Your task to perform on an android device: Set the phone to "Do not disturb". Image 0: 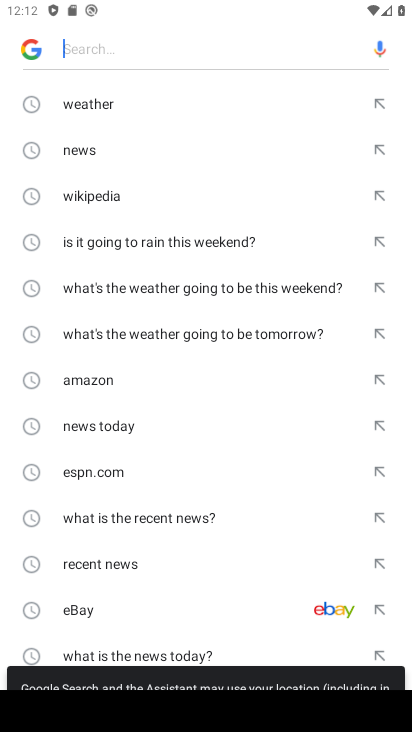
Step 0: press home button
Your task to perform on an android device: Set the phone to "Do not disturb". Image 1: 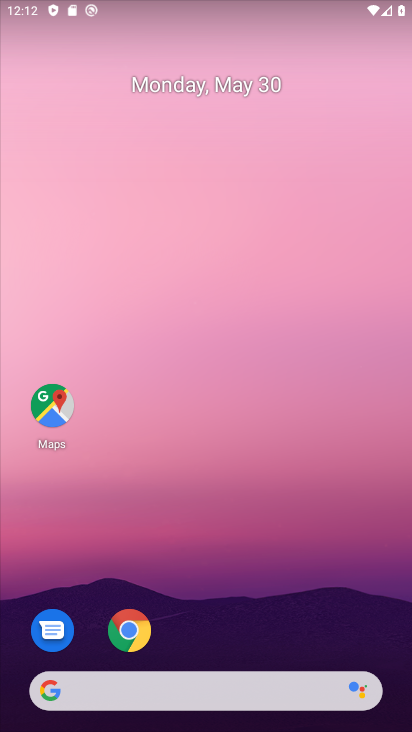
Step 1: drag from (134, 669) to (277, 133)
Your task to perform on an android device: Set the phone to "Do not disturb". Image 2: 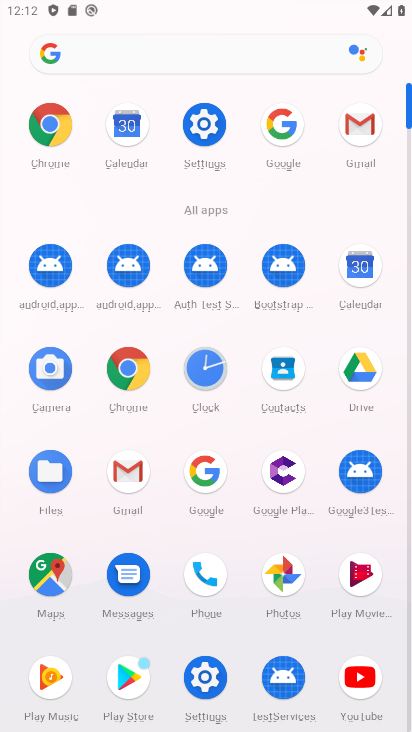
Step 2: click (211, 135)
Your task to perform on an android device: Set the phone to "Do not disturb". Image 3: 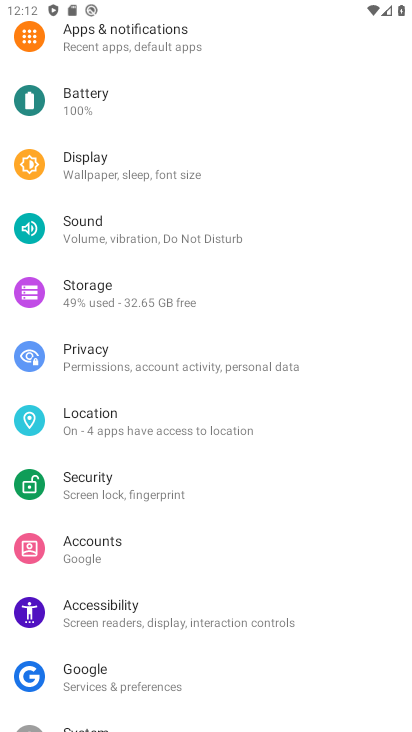
Step 3: click (134, 227)
Your task to perform on an android device: Set the phone to "Do not disturb". Image 4: 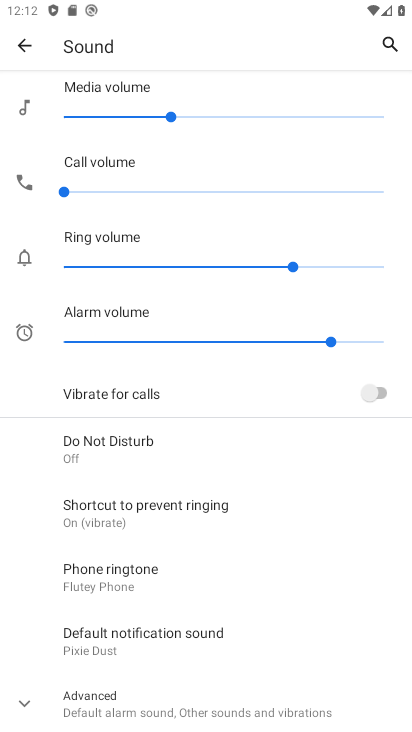
Step 4: click (106, 446)
Your task to perform on an android device: Set the phone to "Do not disturb". Image 5: 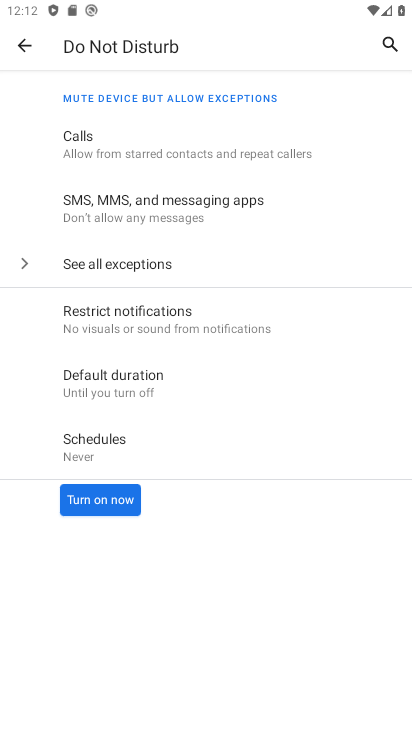
Step 5: click (89, 502)
Your task to perform on an android device: Set the phone to "Do not disturb". Image 6: 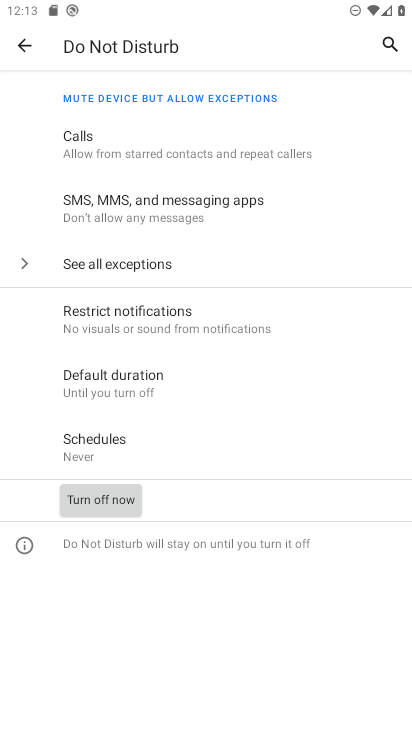
Step 6: task complete